Your task to perform on an android device: toggle priority inbox in the gmail app Image 0: 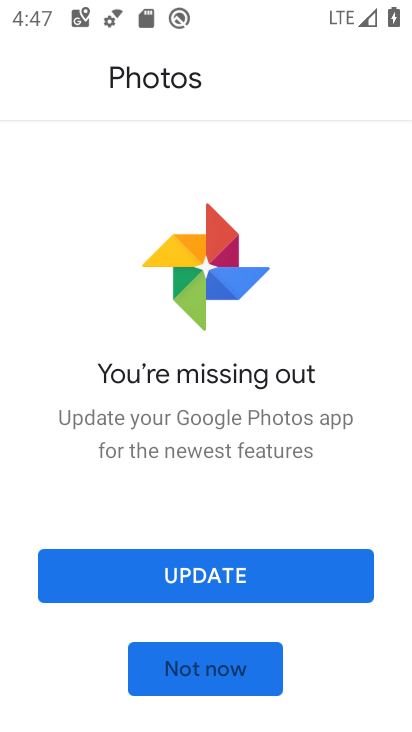
Step 0: press home button
Your task to perform on an android device: toggle priority inbox in the gmail app Image 1: 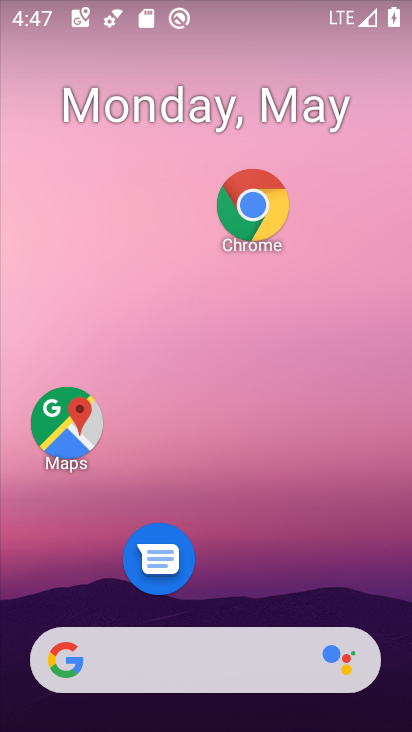
Step 1: drag from (231, 579) to (226, 122)
Your task to perform on an android device: toggle priority inbox in the gmail app Image 2: 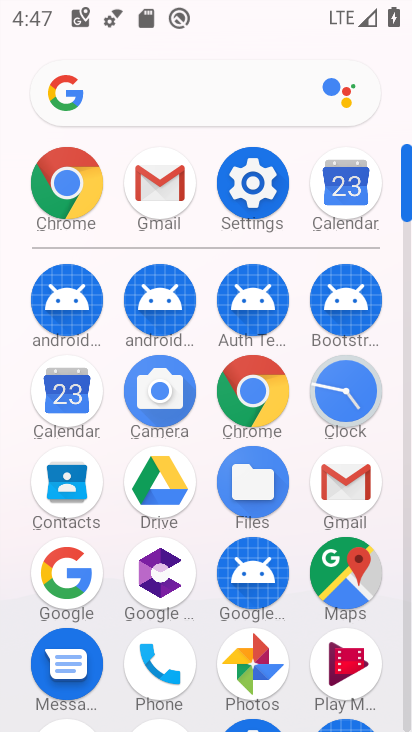
Step 2: click (169, 199)
Your task to perform on an android device: toggle priority inbox in the gmail app Image 3: 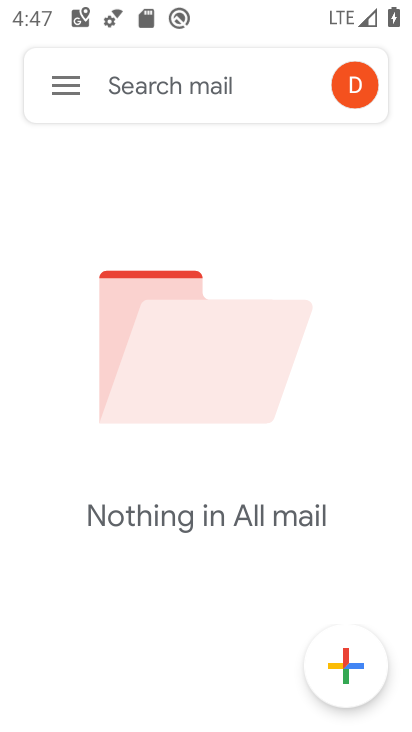
Step 3: click (67, 97)
Your task to perform on an android device: toggle priority inbox in the gmail app Image 4: 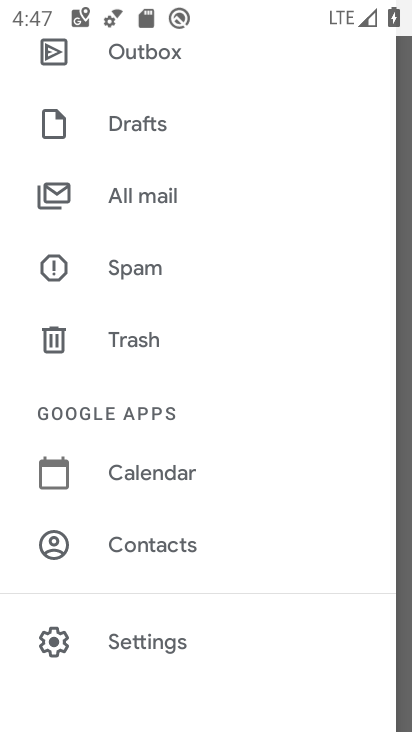
Step 4: click (118, 654)
Your task to perform on an android device: toggle priority inbox in the gmail app Image 5: 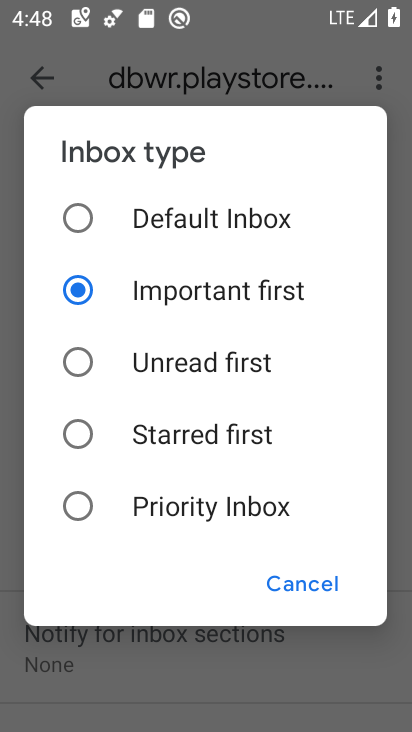
Step 5: click (106, 509)
Your task to perform on an android device: toggle priority inbox in the gmail app Image 6: 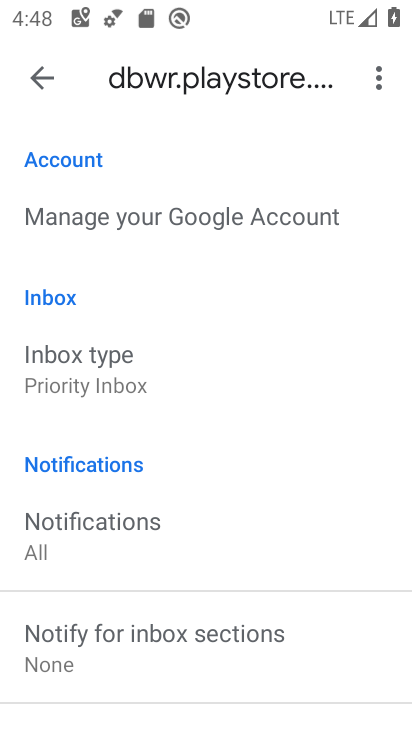
Step 6: task complete